Your task to perform on an android device: Open wifi settings Image 0: 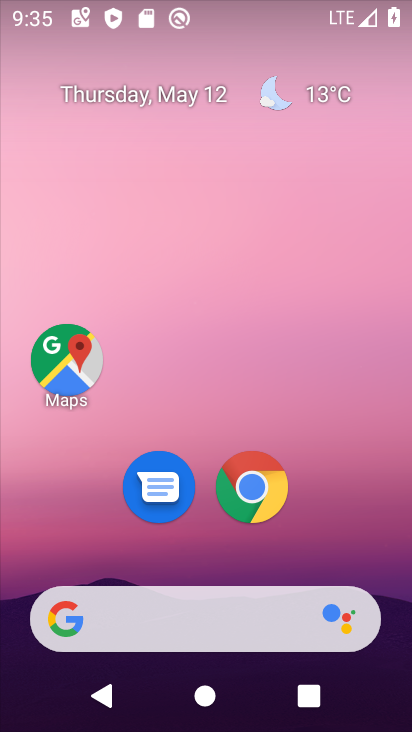
Step 0: drag from (380, 542) to (315, 10)
Your task to perform on an android device: Open wifi settings Image 1: 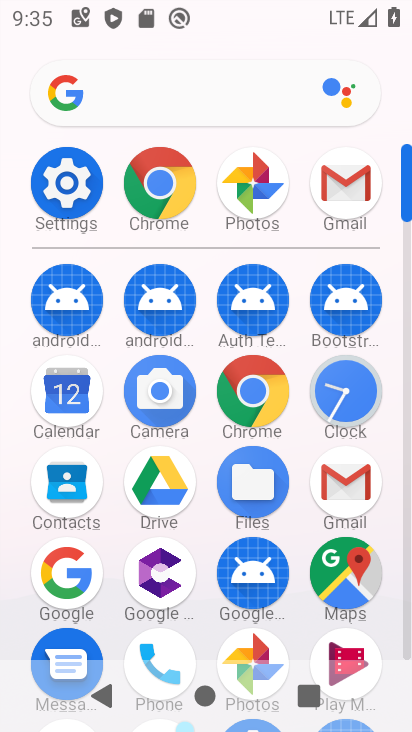
Step 1: click (63, 190)
Your task to perform on an android device: Open wifi settings Image 2: 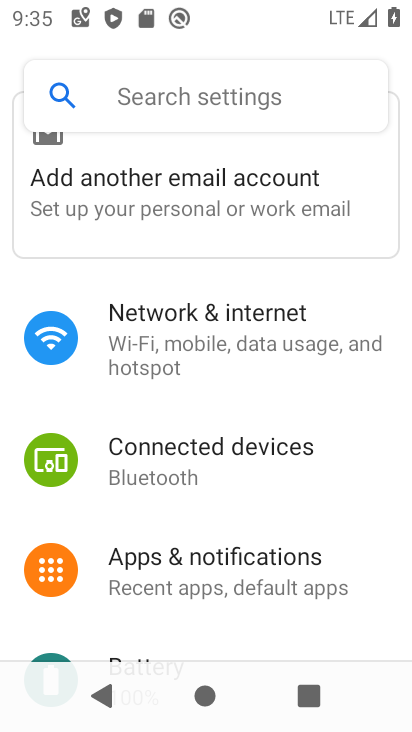
Step 2: click (228, 331)
Your task to perform on an android device: Open wifi settings Image 3: 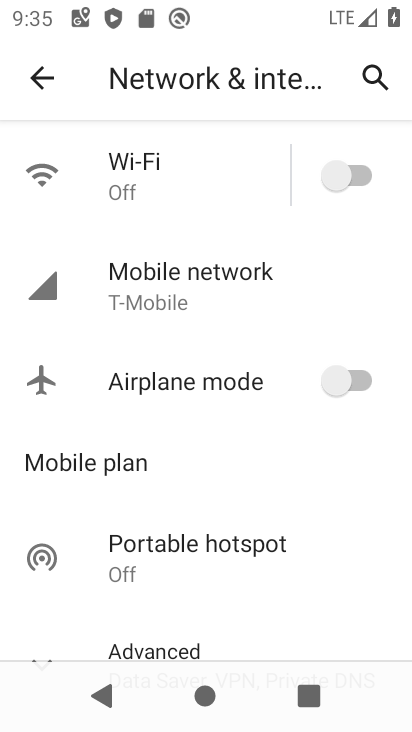
Step 3: click (107, 175)
Your task to perform on an android device: Open wifi settings Image 4: 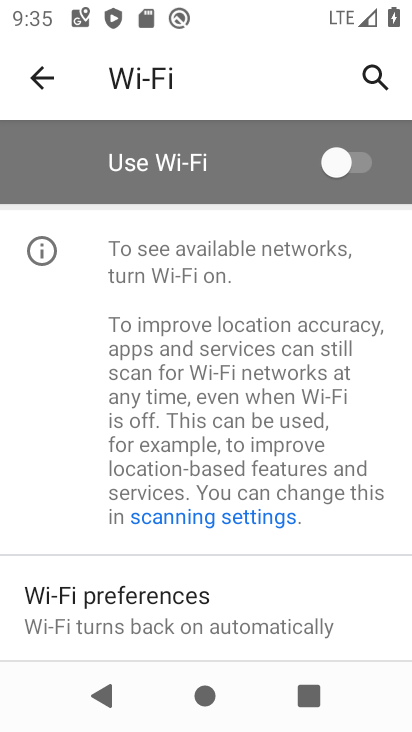
Step 4: task complete